Your task to perform on an android device: turn on showing notifications on the lock screen Image 0: 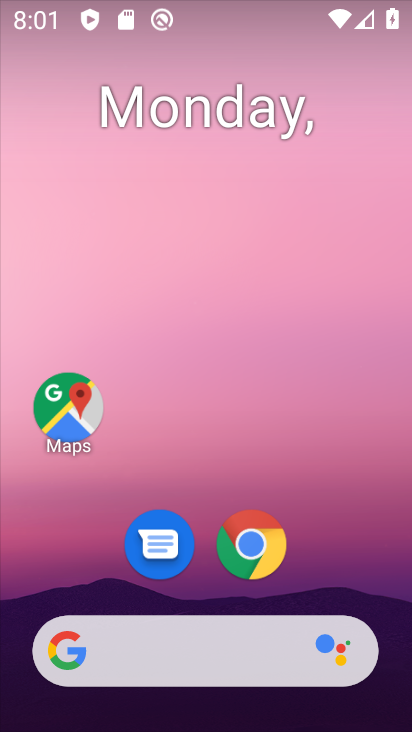
Step 0: click (18, 192)
Your task to perform on an android device: turn on showing notifications on the lock screen Image 1: 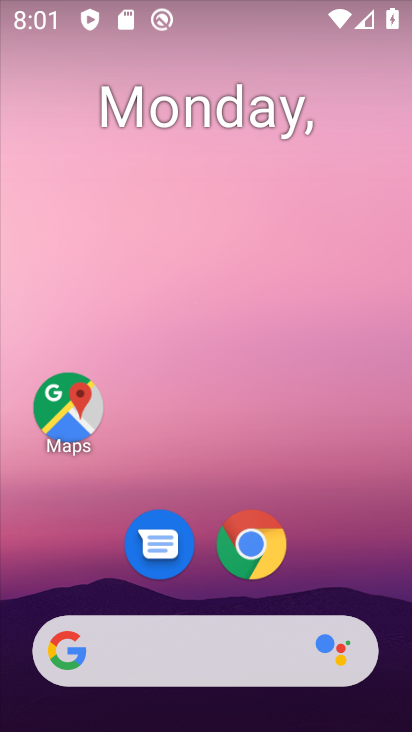
Step 1: drag from (241, 608) to (410, 197)
Your task to perform on an android device: turn on showing notifications on the lock screen Image 2: 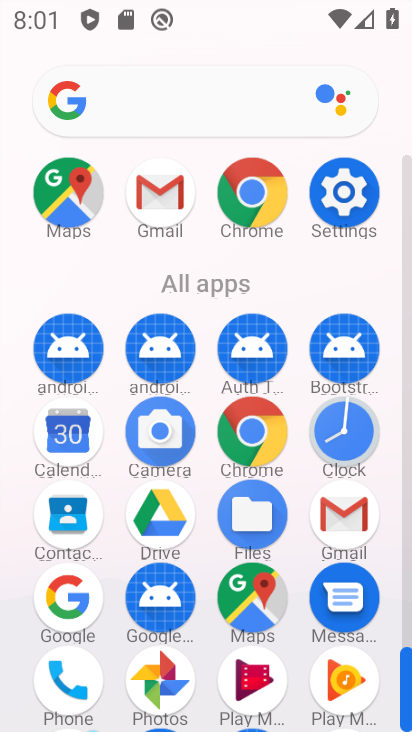
Step 2: click (349, 206)
Your task to perform on an android device: turn on showing notifications on the lock screen Image 3: 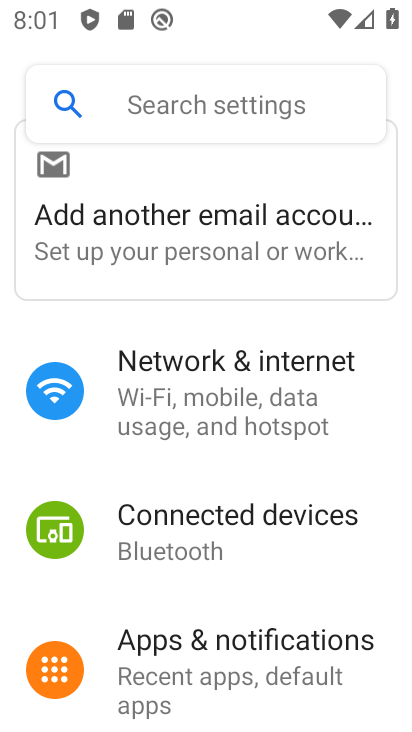
Step 3: click (345, 659)
Your task to perform on an android device: turn on showing notifications on the lock screen Image 4: 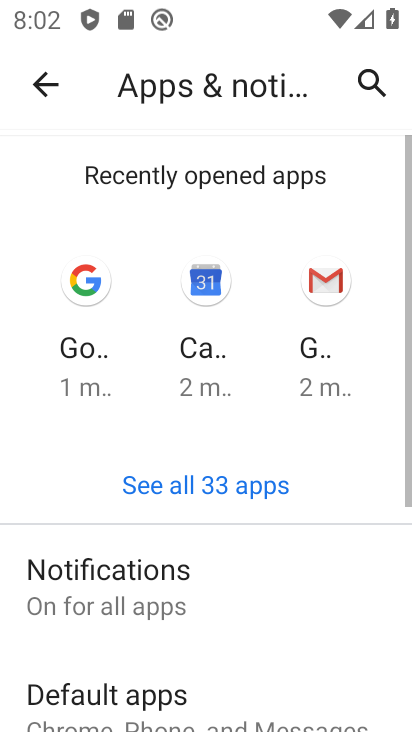
Step 4: click (165, 604)
Your task to perform on an android device: turn on showing notifications on the lock screen Image 5: 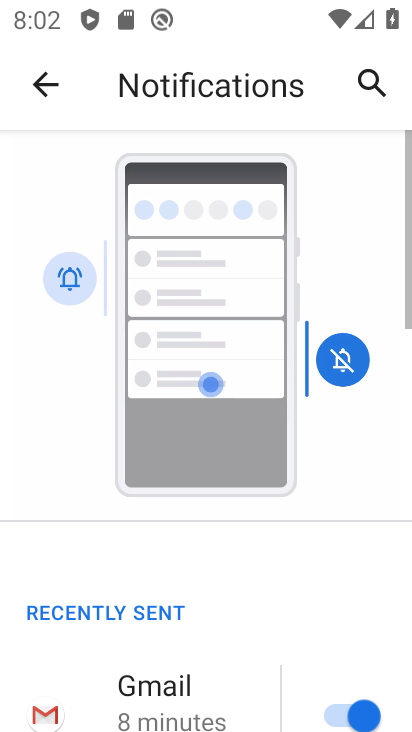
Step 5: drag from (164, 603) to (76, 107)
Your task to perform on an android device: turn on showing notifications on the lock screen Image 6: 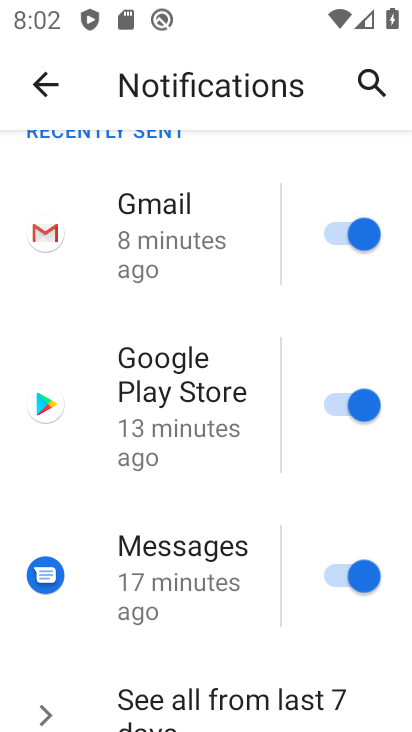
Step 6: drag from (173, 580) to (100, 72)
Your task to perform on an android device: turn on showing notifications on the lock screen Image 7: 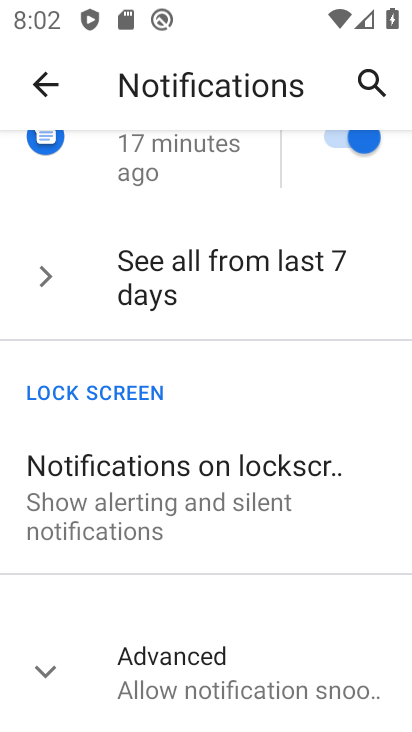
Step 7: click (190, 465)
Your task to perform on an android device: turn on showing notifications on the lock screen Image 8: 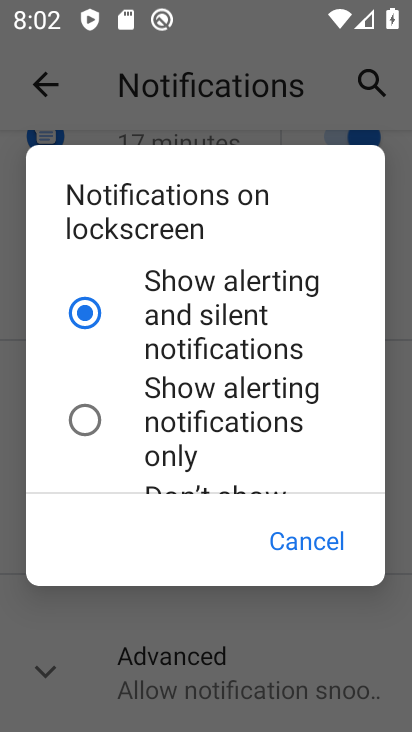
Step 8: task complete